Your task to perform on an android device: Add "amazon basics triple a" to the cart on costco Image 0: 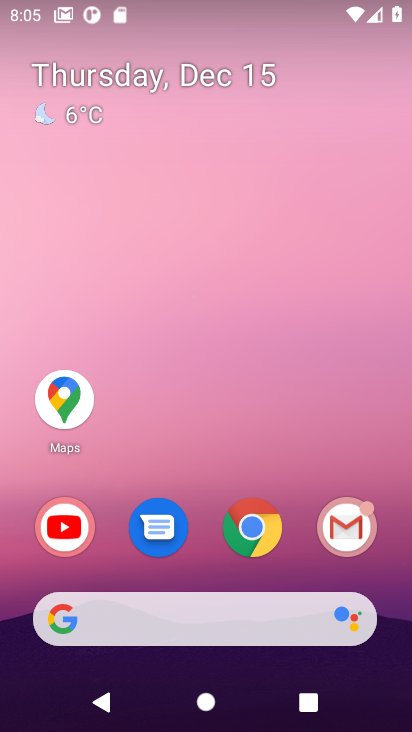
Step 0: click (257, 548)
Your task to perform on an android device: Add "amazon basics triple a" to the cart on costco Image 1: 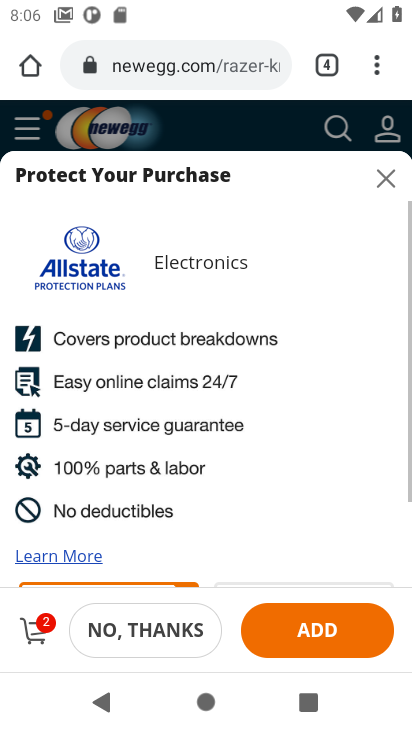
Step 1: click (301, 647)
Your task to perform on an android device: Add "amazon basics triple a" to the cart on costco Image 2: 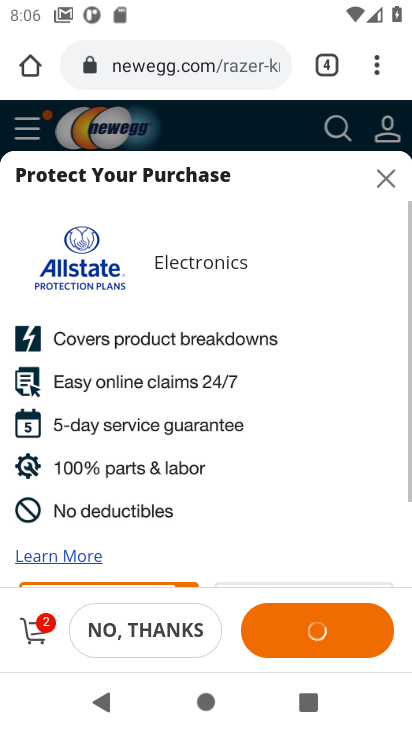
Step 2: task complete